Your task to perform on an android device: install app "LiveIn - Share Your Moment" Image 0: 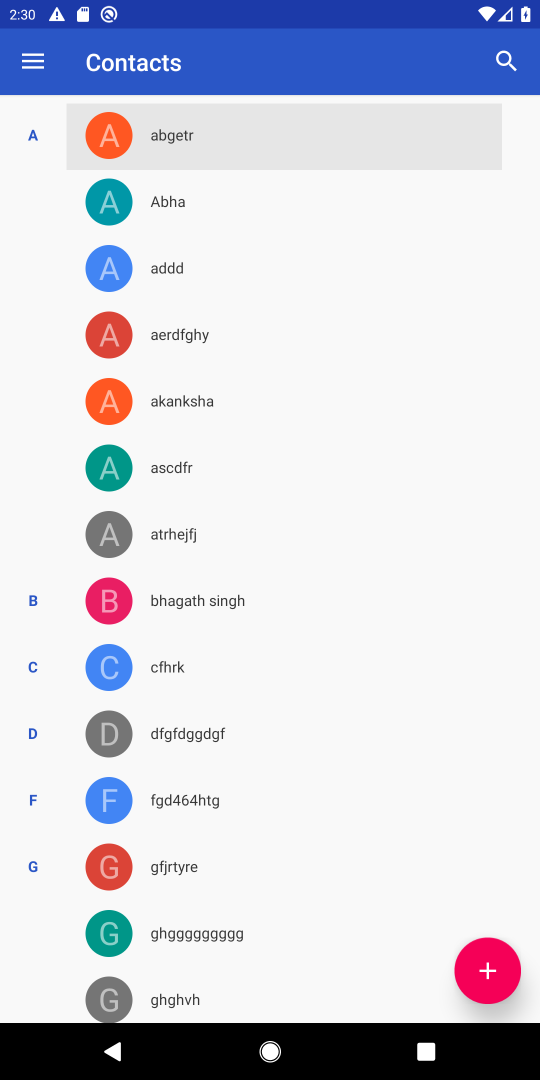
Step 0: press home button
Your task to perform on an android device: install app "LiveIn - Share Your Moment" Image 1: 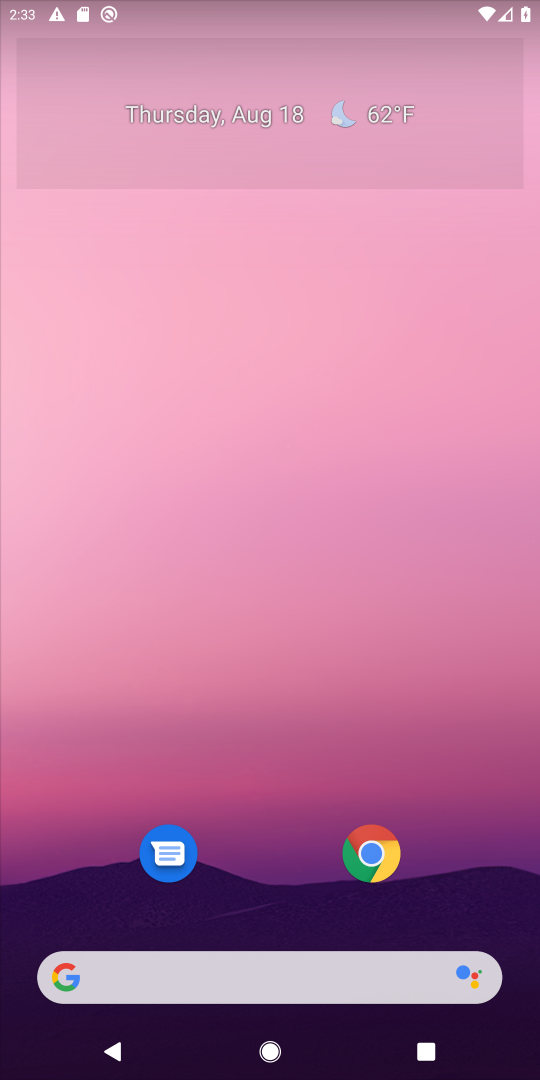
Step 1: drag from (512, 913) to (436, 10)
Your task to perform on an android device: install app "LiveIn - Share Your Moment" Image 2: 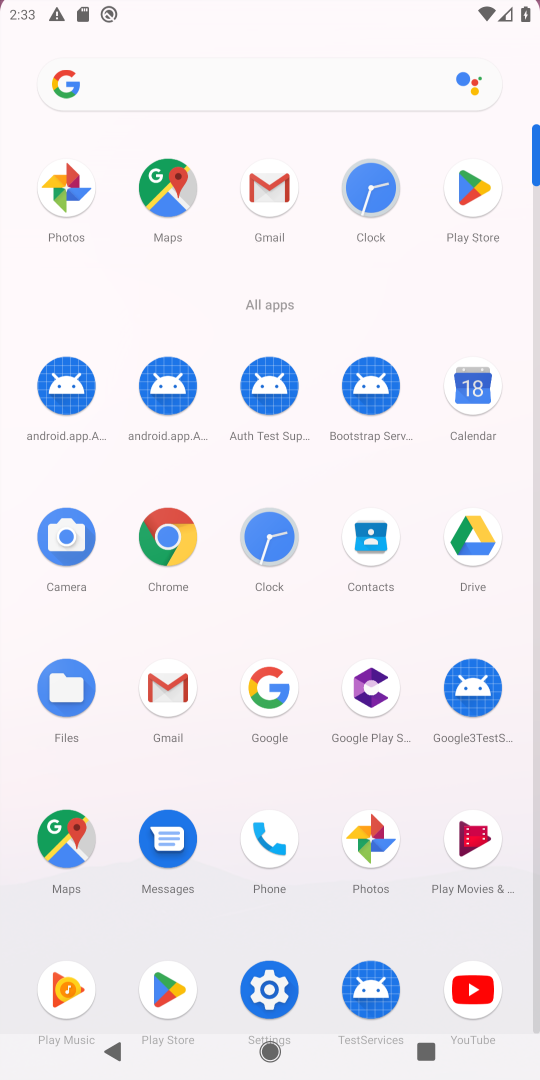
Step 2: click (468, 173)
Your task to perform on an android device: install app "LiveIn - Share Your Moment" Image 3: 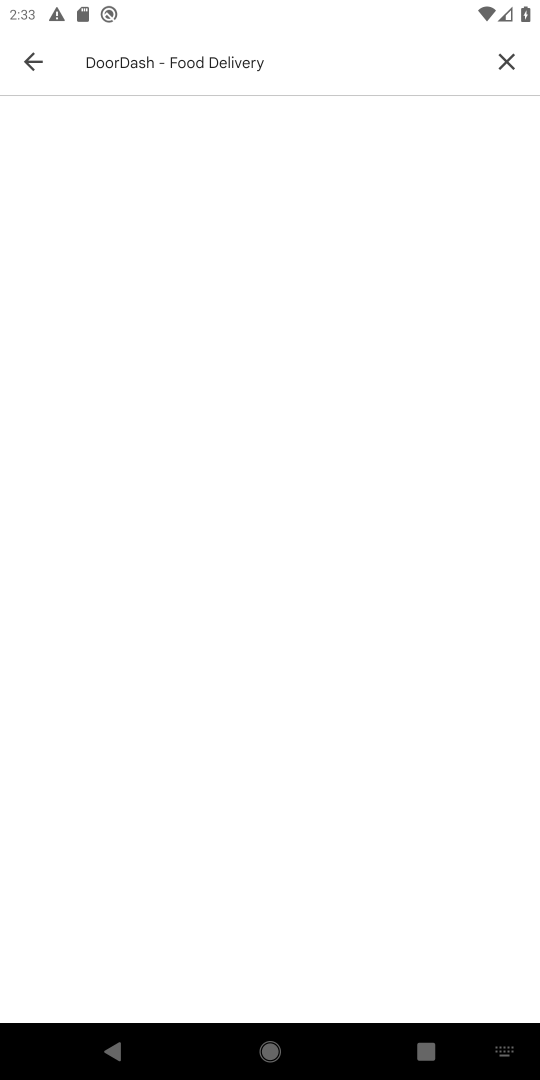
Step 3: click (499, 59)
Your task to perform on an android device: install app "LiveIn - Share Your Moment" Image 4: 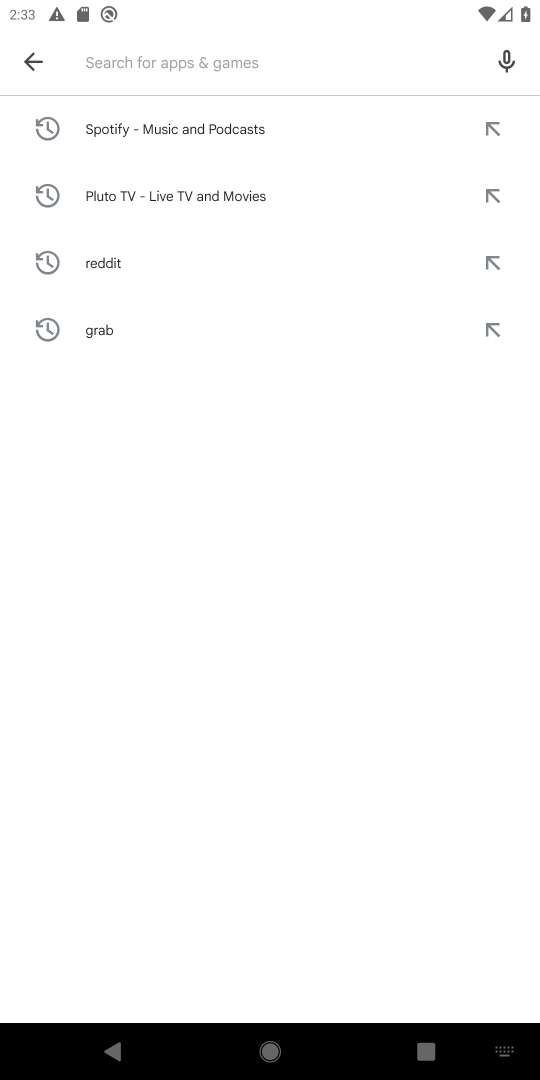
Step 4: type "LiveIn - Share Your Moment"
Your task to perform on an android device: install app "LiveIn - Share Your Moment" Image 5: 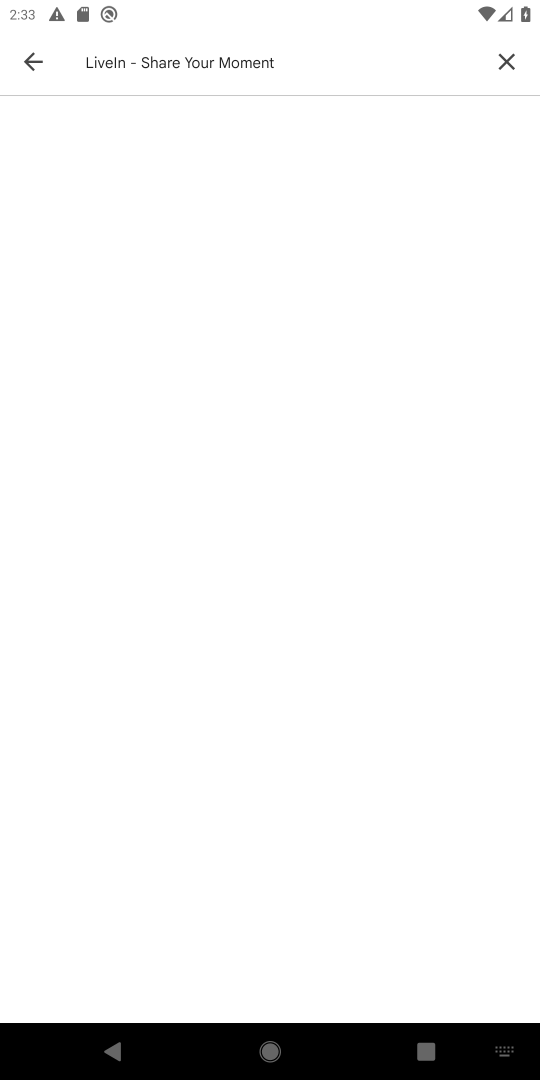
Step 5: task complete